Your task to perform on an android device: turn on airplane mode Image 0: 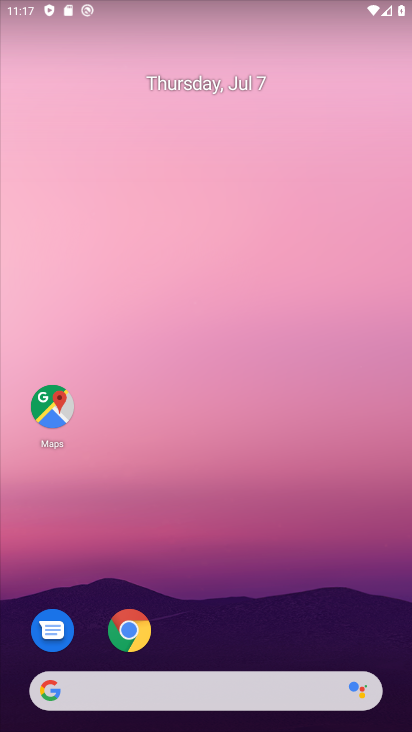
Step 0: drag from (376, 643) to (222, 84)
Your task to perform on an android device: turn on airplane mode Image 1: 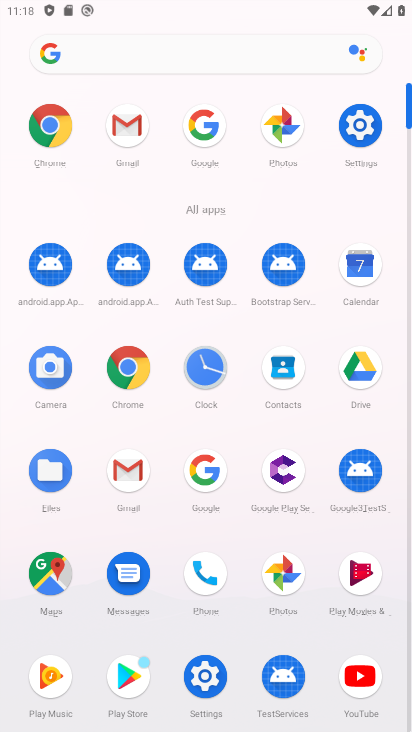
Step 1: drag from (265, 0) to (251, 538)
Your task to perform on an android device: turn on airplane mode Image 2: 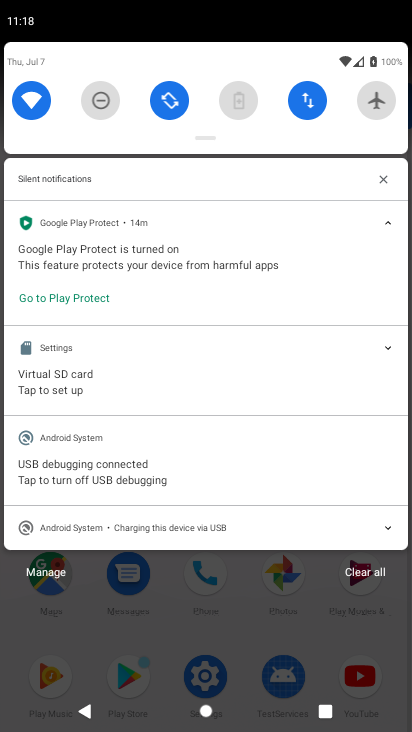
Step 2: click (373, 101)
Your task to perform on an android device: turn on airplane mode Image 3: 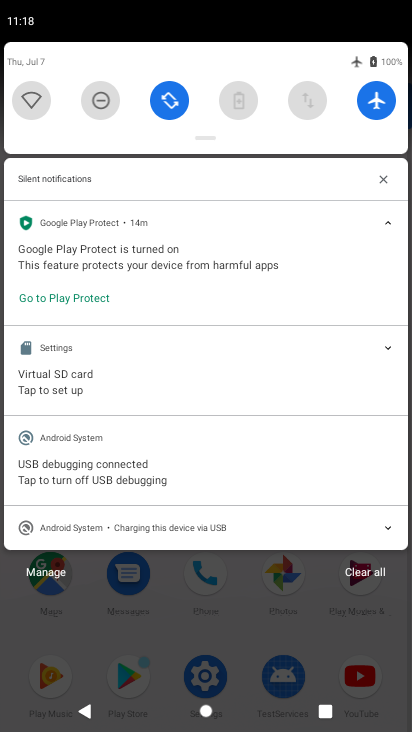
Step 3: task complete